Your task to perform on an android device: delete location history Image 0: 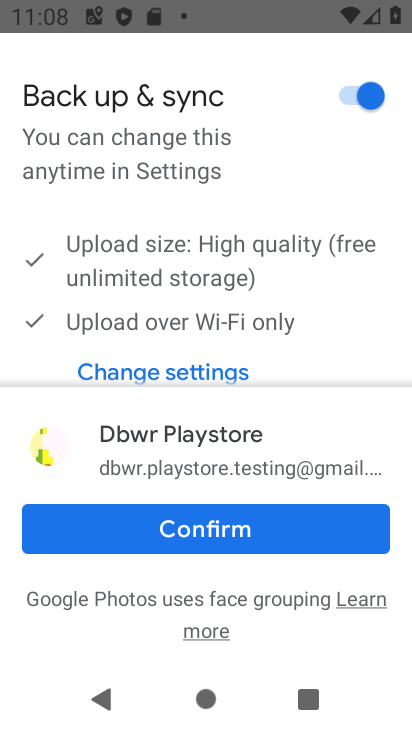
Step 0: press home button
Your task to perform on an android device: delete location history Image 1: 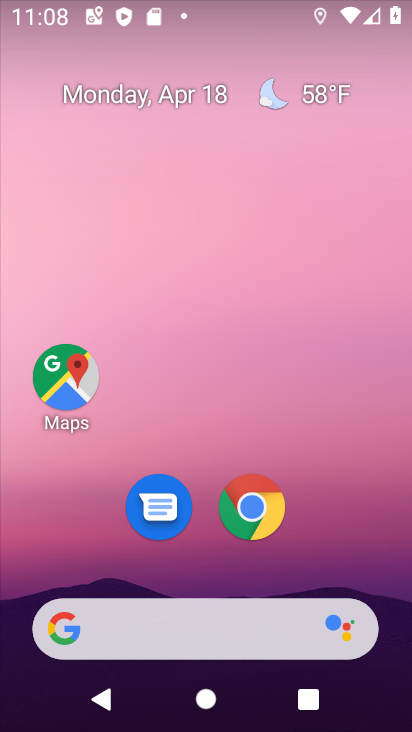
Step 1: click (211, 574)
Your task to perform on an android device: delete location history Image 2: 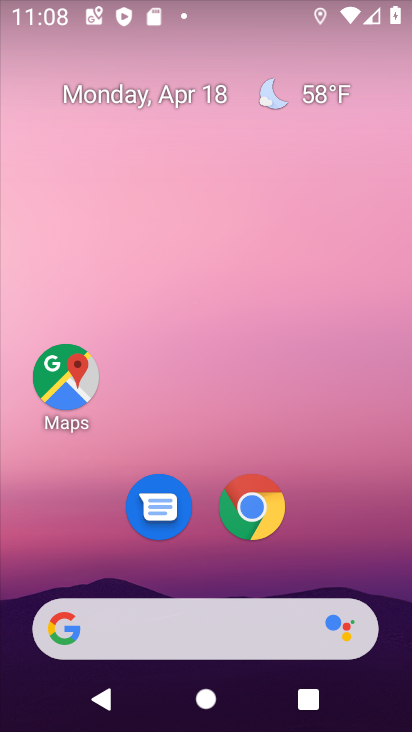
Step 2: click (62, 380)
Your task to perform on an android device: delete location history Image 3: 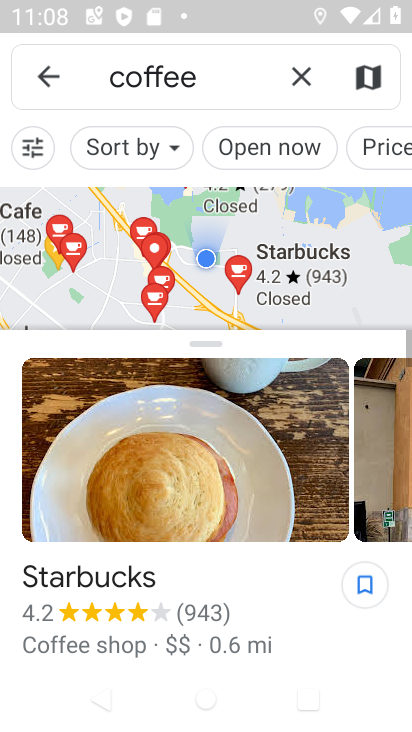
Step 3: click (48, 73)
Your task to perform on an android device: delete location history Image 4: 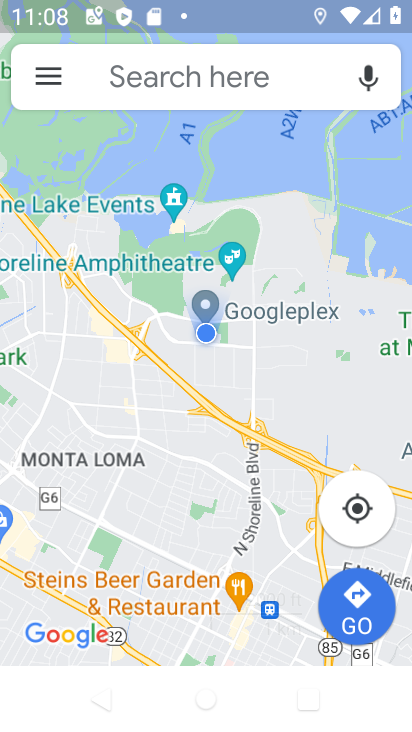
Step 4: click (48, 74)
Your task to perform on an android device: delete location history Image 5: 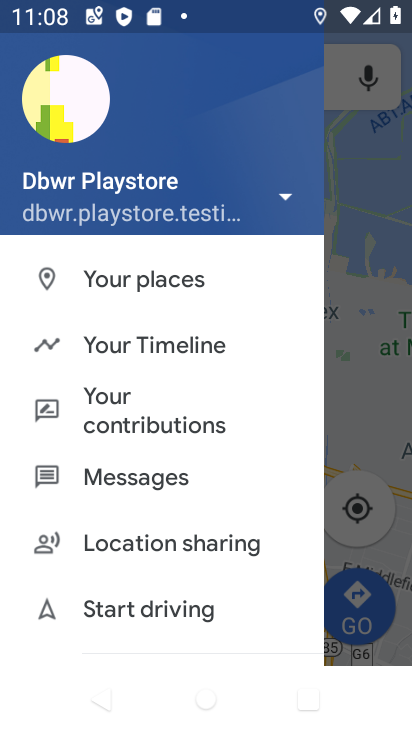
Step 5: click (126, 344)
Your task to perform on an android device: delete location history Image 6: 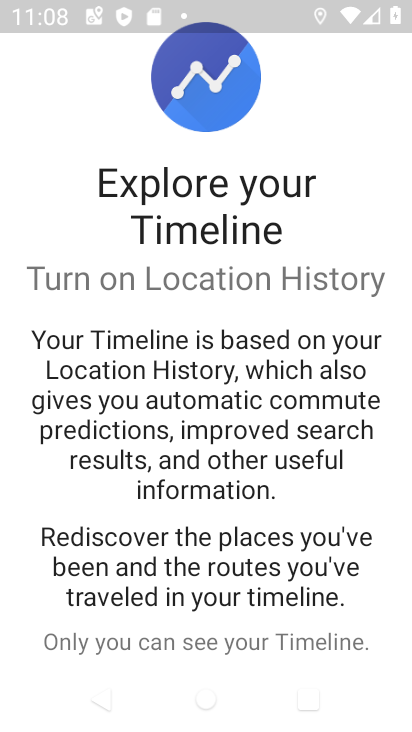
Step 6: drag from (202, 534) to (275, 80)
Your task to perform on an android device: delete location history Image 7: 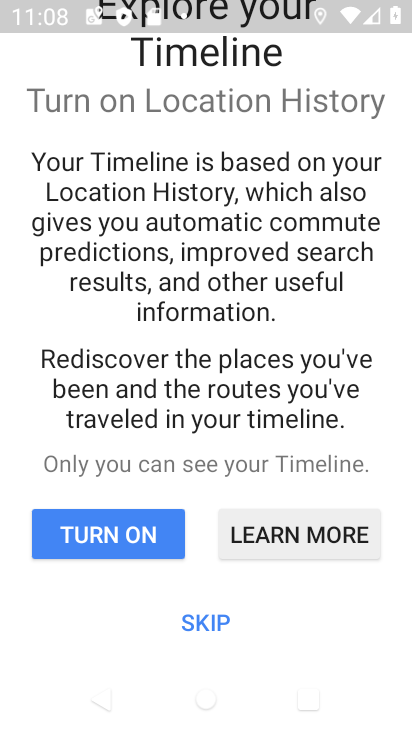
Step 7: click (201, 618)
Your task to perform on an android device: delete location history Image 8: 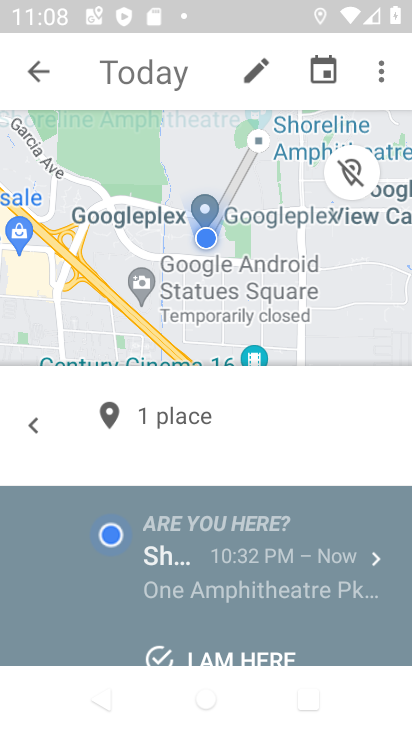
Step 8: click (377, 67)
Your task to perform on an android device: delete location history Image 9: 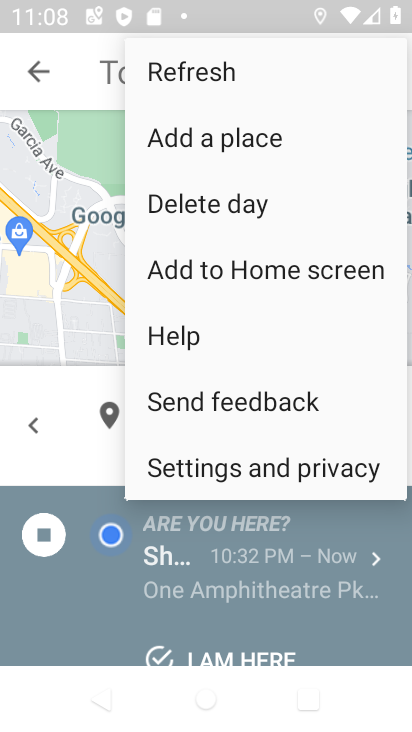
Step 9: click (238, 467)
Your task to perform on an android device: delete location history Image 10: 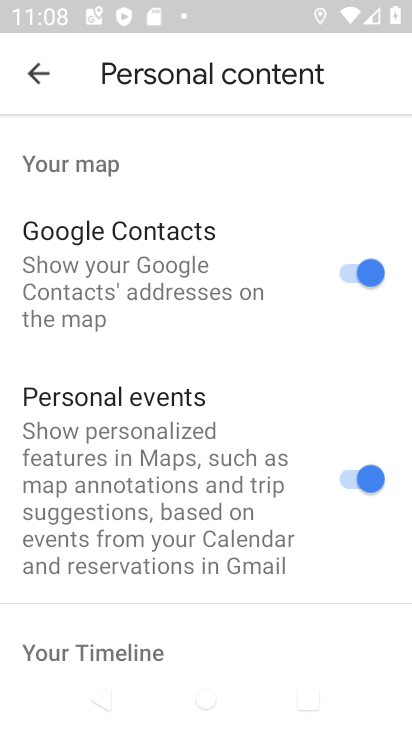
Step 10: drag from (208, 644) to (245, 262)
Your task to perform on an android device: delete location history Image 11: 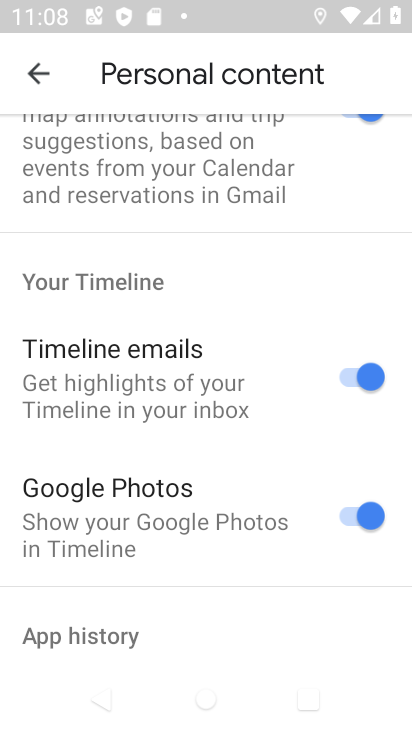
Step 11: drag from (188, 602) to (273, 116)
Your task to perform on an android device: delete location history Image 12: 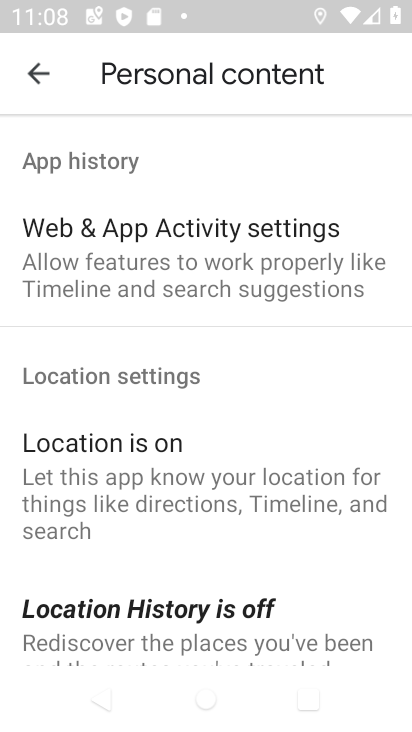
Step 12: drag from (212, 569) to (267, 174)
Your task to perform on an android device: delete location history Image 13: 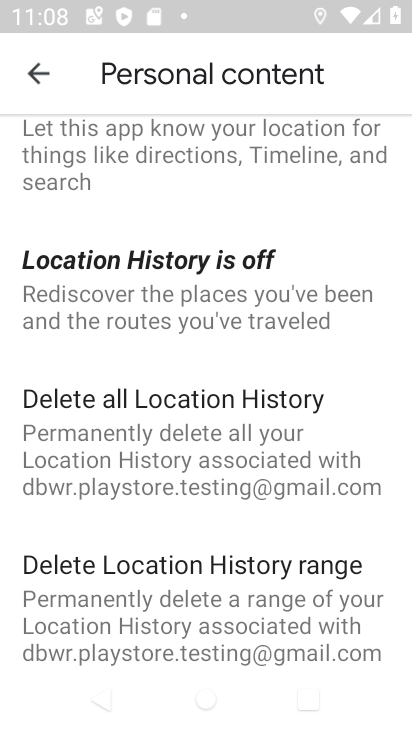
Step 13: click (209, 413)
Your task to perform on an android device: delete location history Image 14: 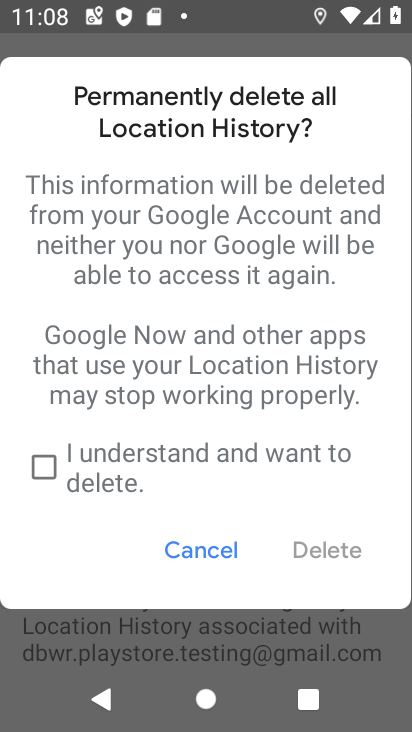
Step 14: click (35, 466)
Your task to perform on an android device: delete location history Image 15: 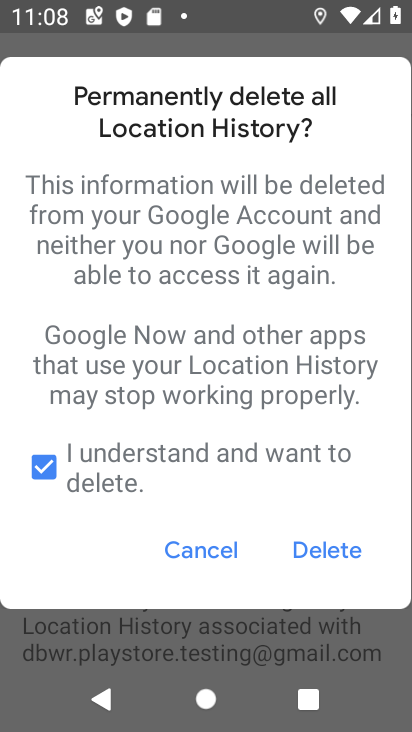
Step 15: click (334, 541)
Your task to perform on an android device: delete location history Image 16: 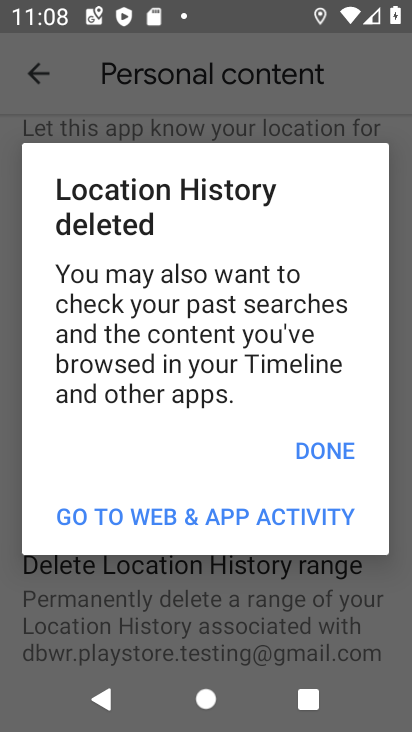
Step 16: click (325, 452)
Your task to perform on an android device: delete location history Image 17: 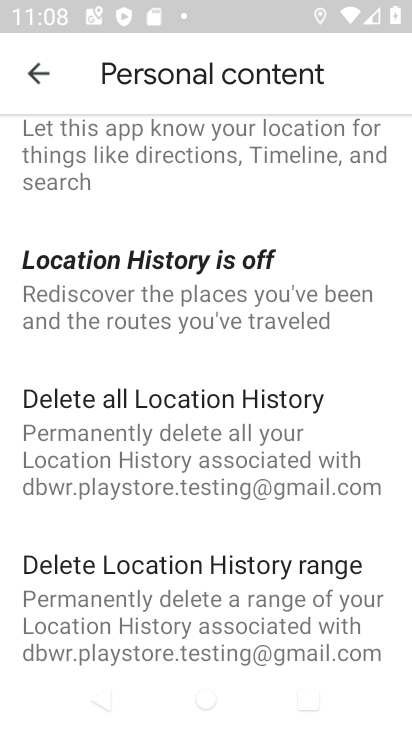
Step 17: click (359, 406)
Your task to perform on an android device: delete location history Image 18: 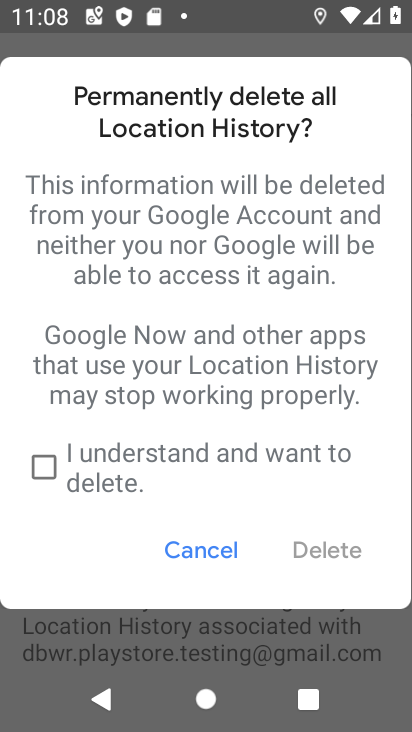
Step 18: click (39, 470)
Your task to perform on an android device: delete location history Image 19: 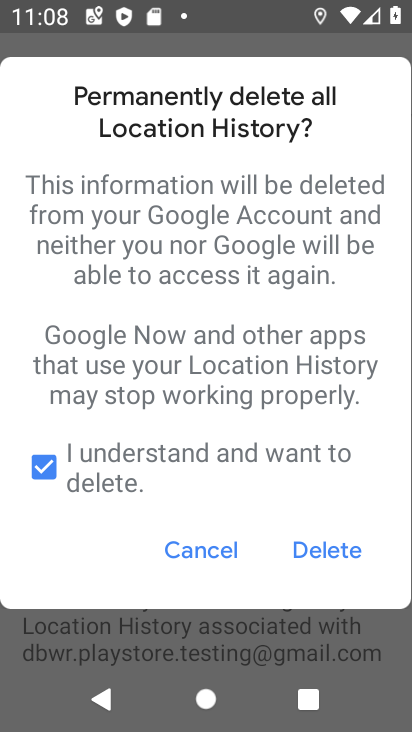
Step 19: click (328, 552)
Your task to perform on an android device: delete location history Image 20: 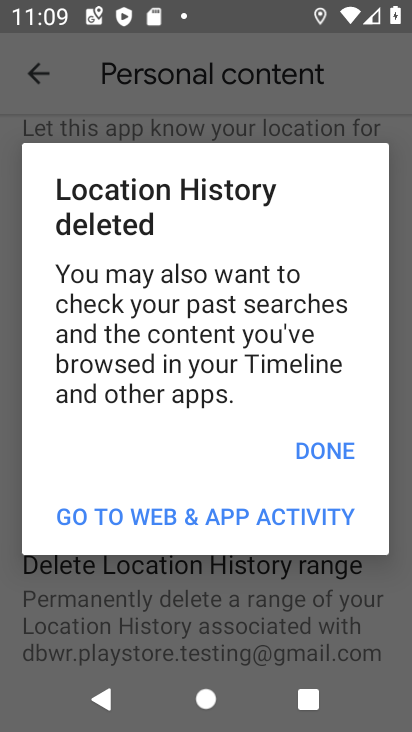
Step 20: click (330, 450)
Your task to perform on an android device: delete location history Image 21: 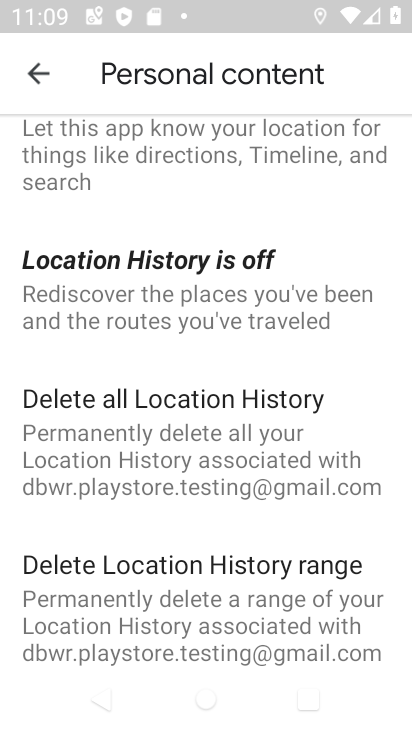
Step 21: task complete